Your task to perform on an android device: Open wifi settings Image 0: 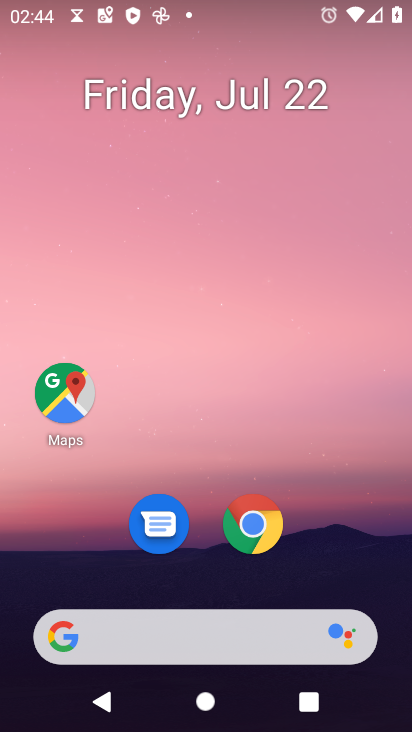
Step 0: press home button
Your task to perform on an android device: Open wifi settings Image 1: 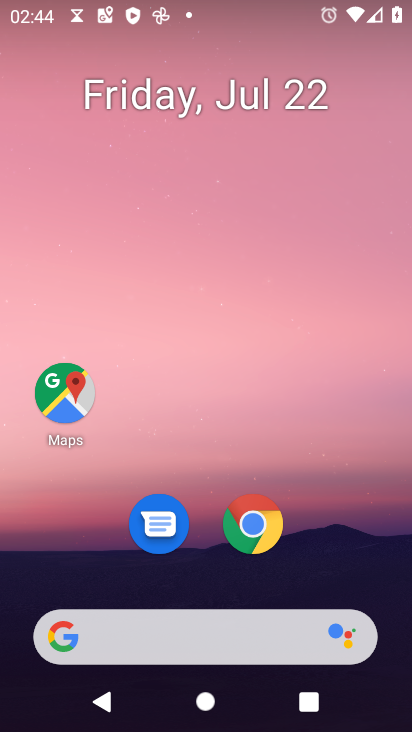
Step 1: drag from (180, 635) to (287, 127)
Your task to perform on an android device: Open wifi settings Image 2: 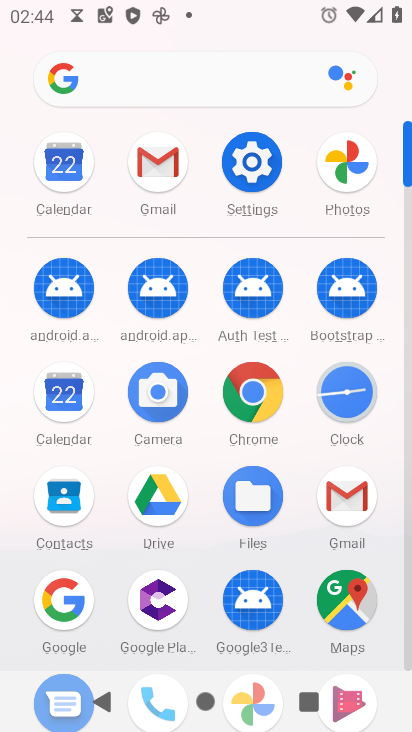
Step 2: click (257, 164)
Your task to perform on an android device: Open wifi settings Image 3: 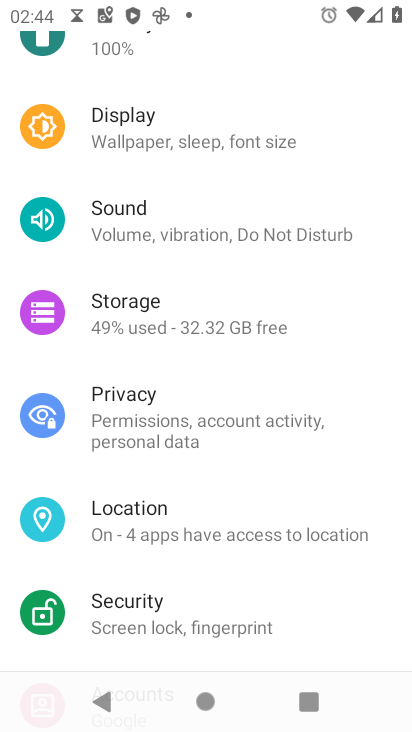
Step 3: drag from (308, 105) to (283, 541)
Your task to perform on an android device: Open wifi settings Image 4: 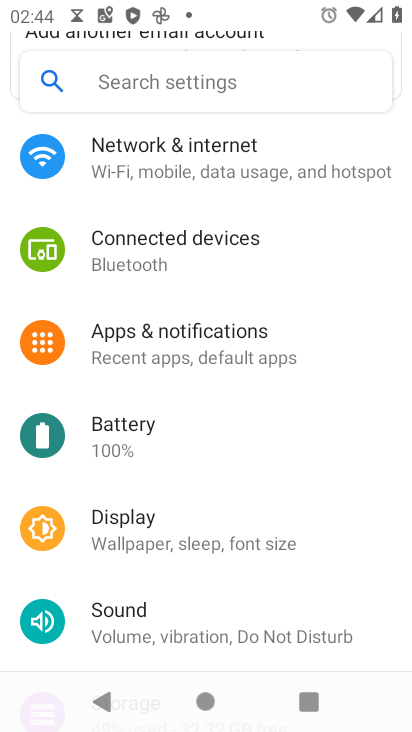
Step 4: click (201, 160)
Your task to perform on an android device: Open wifi settings Image 5: 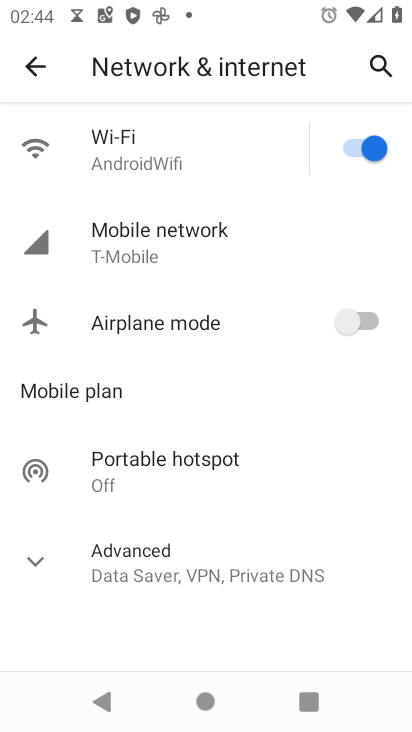
Step 5: click (147, 159)
Your task to perform on an android device: Open wifi settings Image 6: 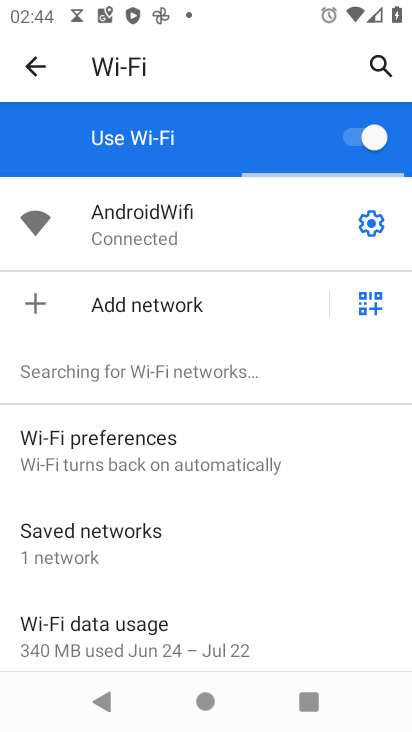
Step 6: task complete